Your task to perform on an android device: Open Chrome and go to settings Image 0: 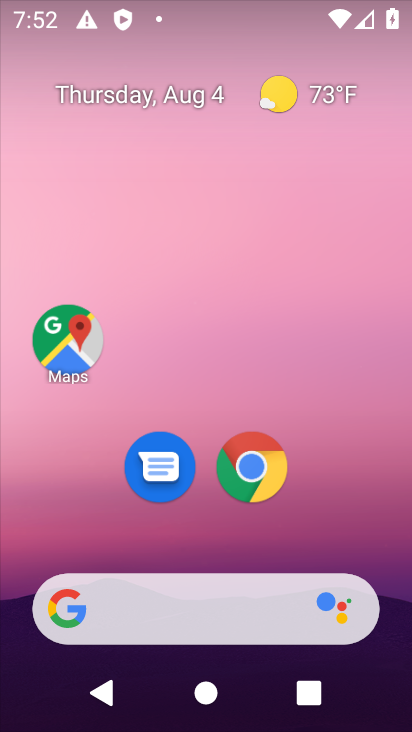
Step 0: click (261, 456)
Your task to perform on an android device: Open Chrome and go to settings Image 1: 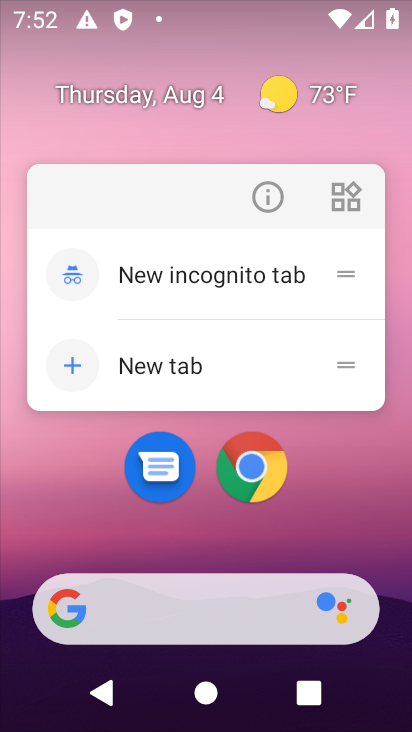
Step 1: click (253, 461)
Your task to perform on an android device: Open Chrome and go to settings Image 2: 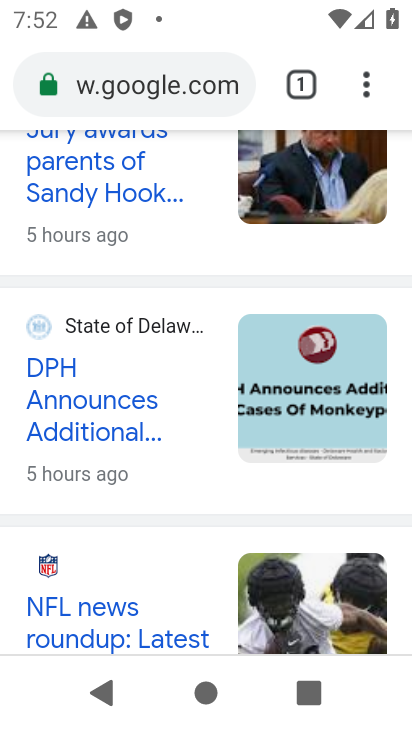
Step 2: task complete